Your task to perform on an android device: empty trash in the gmail app Image 0: 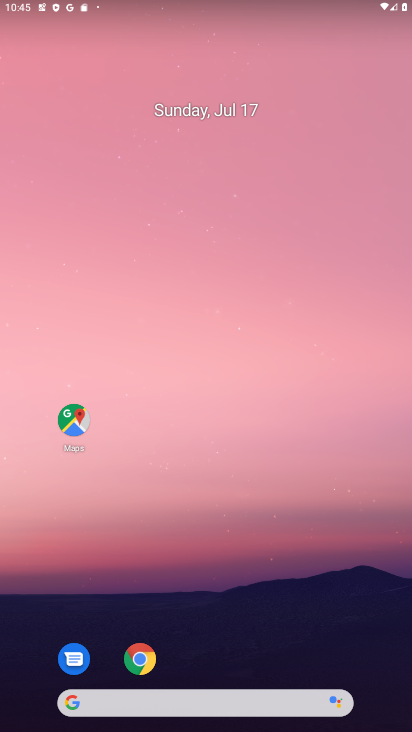
Step 0: drag from (194, 672) to (225, 151)
Your task to perform on an android device: empty trash in the gmail app Image 1: 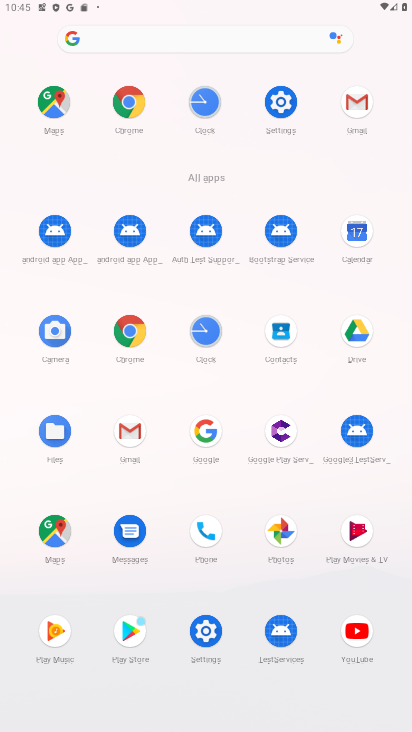
Step 1: click (367, 119)
Your task to perform on an android device: empty trash in the gmail app Image 2: 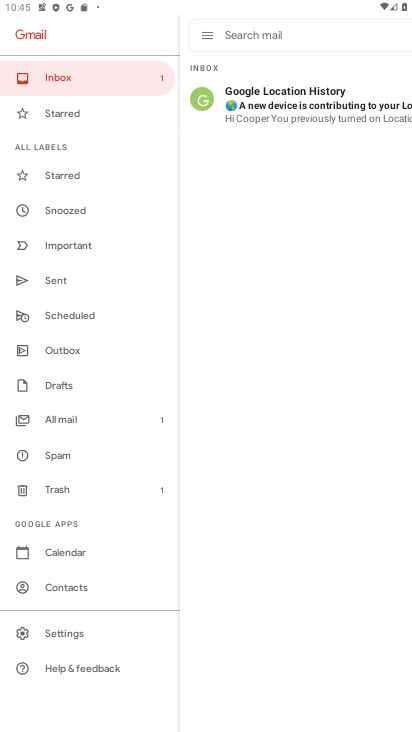
Step 2: click (41, 504)
Your task to perform on an android device: empty trash in the gmail app Image 3: 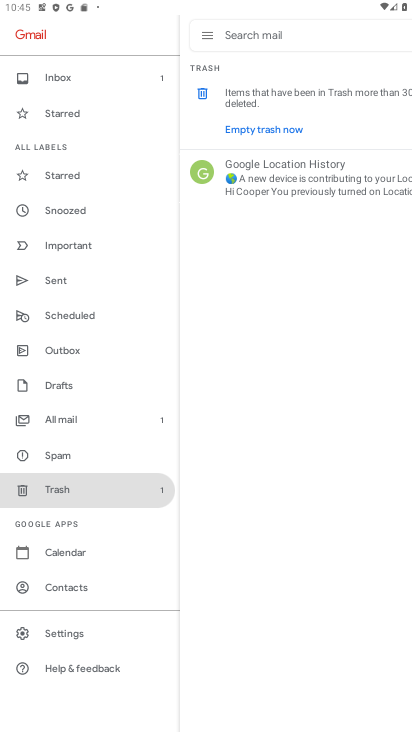
Step 3: click (249, 133)
Your task to perform on an android device: empty trash in the gmail app Image 4: 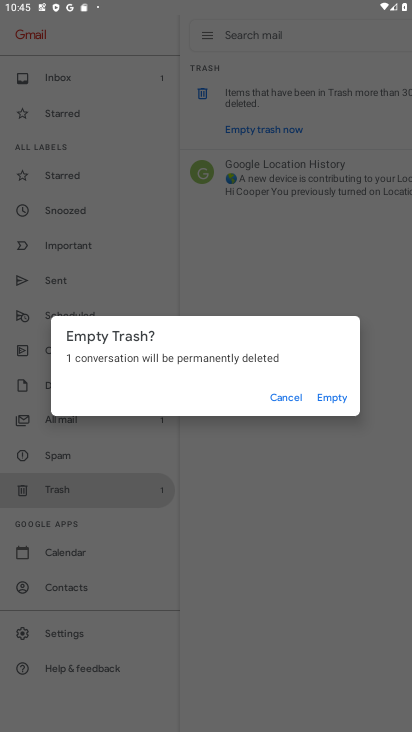
Step 4: click (342, 400)
Your task to perform on an android device: empty trash in the gmail app Image 5: 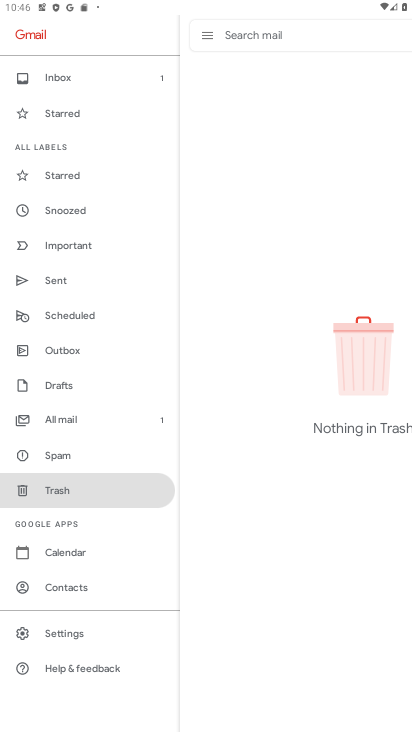
Step 5: task complete